Your task to perform on an android device: open device folders in google photos Image 0: 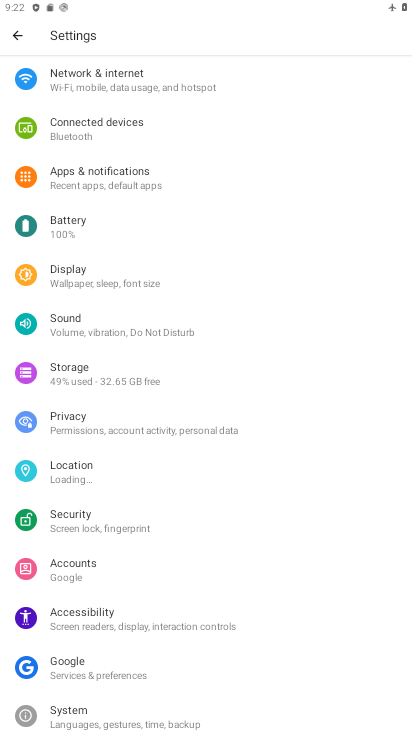
Step 0: press home button
Your task to perform on an android device: open device folders in google photos Image 1: 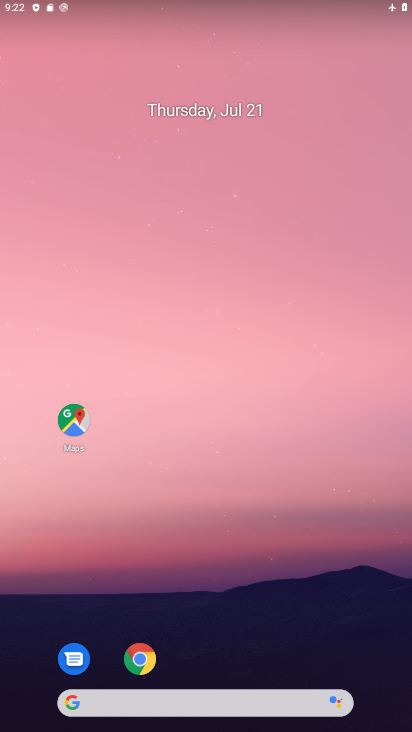
Step 1: drag from (217, 672) to (211, 10)
Your task to perform on an android device: open device folders in google photos Image 2: 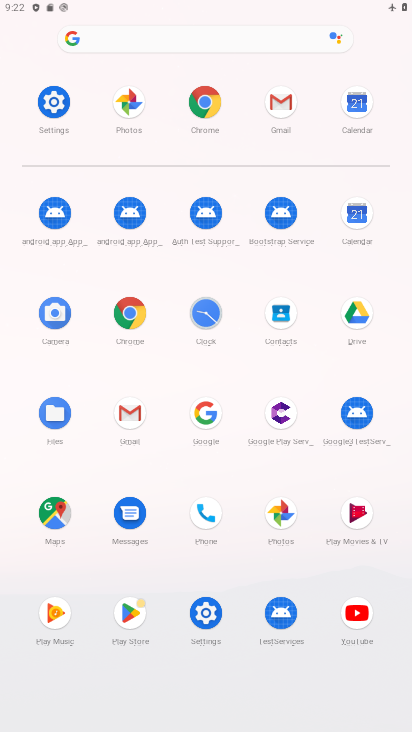
Step 2: click (132, 107)
Your task to perform on an android device: open device folders in google photos Image 3: 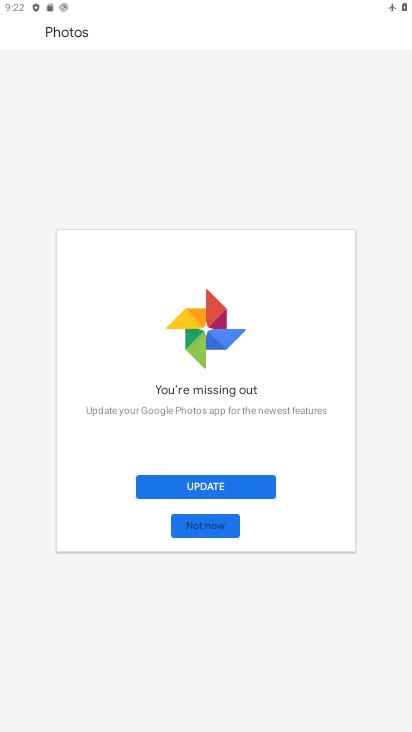
Step 3: click (215, 527)
Your task to perform on an android device: open device folders in google photos Image 4: 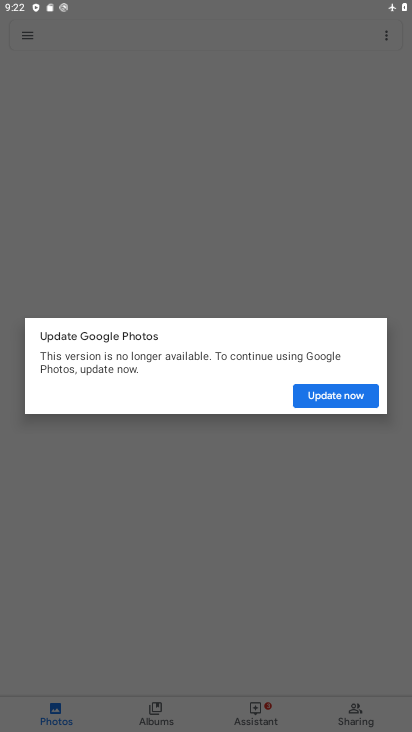
Step 4: click (335, 395)
Your task to perform on an android device: open device folders in google photos Image 5: 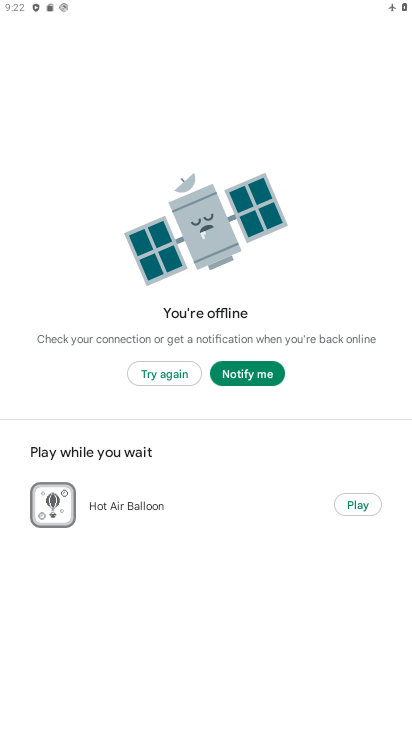
Step 5: task complete